Your task to perform on an android device: What's the weather today? Image 0: 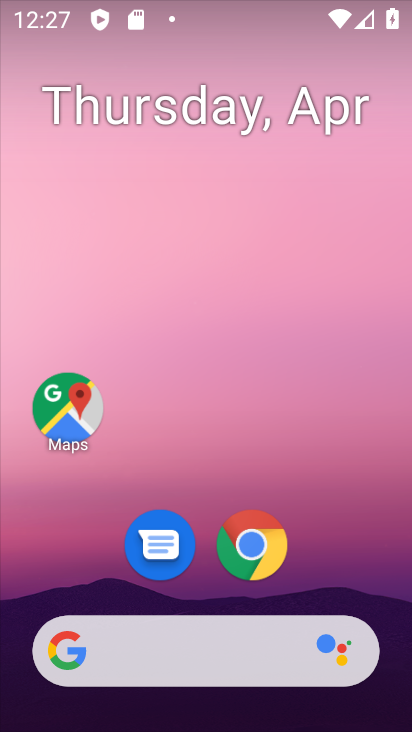
Step 0: drag from (336, 519) to (276, 136)
Your task to perform on an android device: What's the weather today? Image 1: 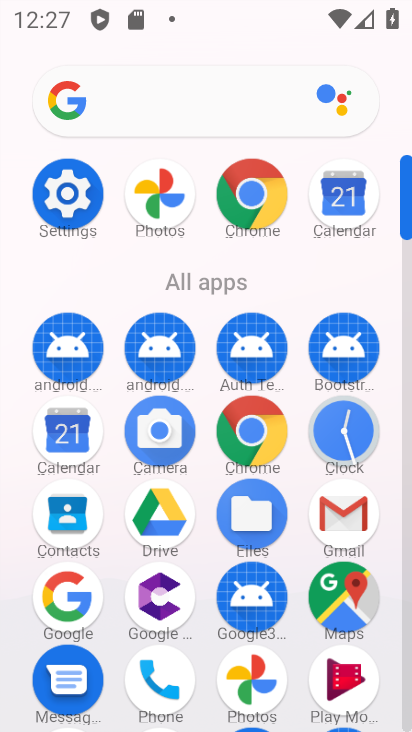
Step 1: click (248, 420)
Your task to perform on an android device: What's the weather today? Image 2: 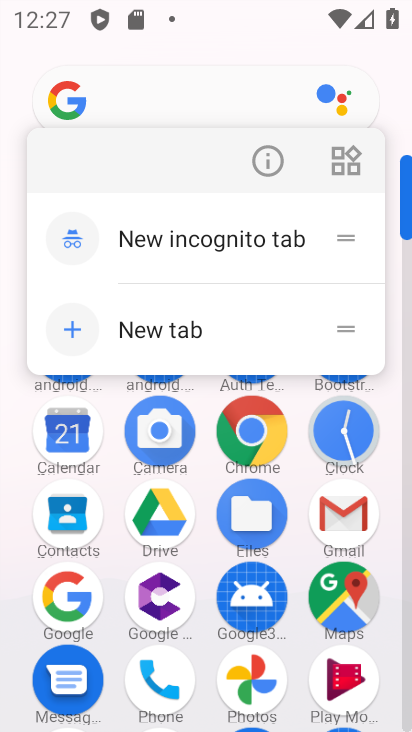
Step 2: click (251, 443)
Your task to perform on an android device: What's the weather today? Image 3: 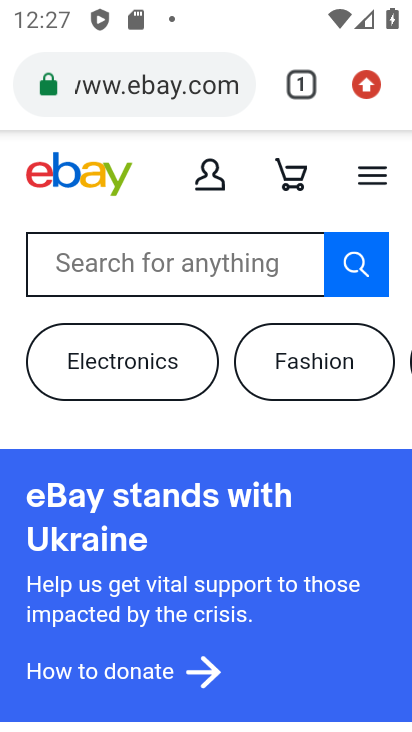
Step 3: click (184, 75)
Your task to perform on an android device: What's the weather today? Image 4: 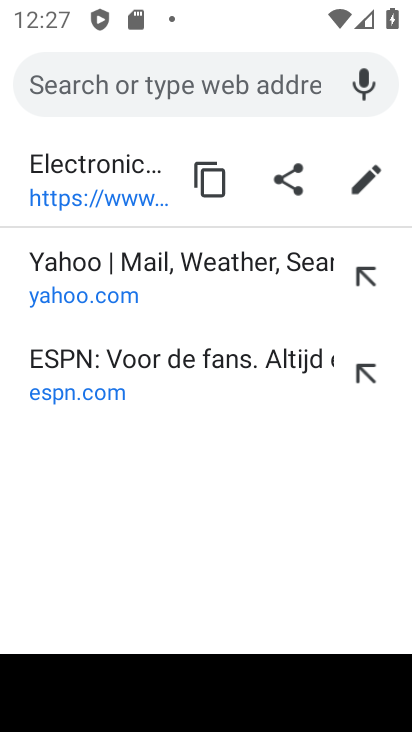
Step 4: type "weather"
Your task to perform on an android device: What's the weather today? Image 5: 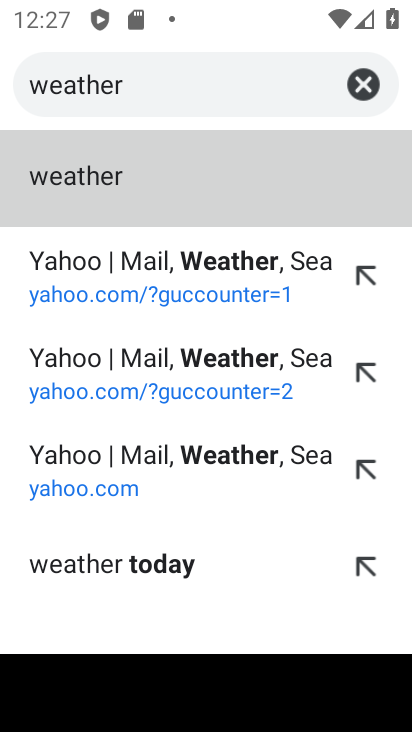
Step 5: click (100, 184)
Your task to perform on an android device: What's the weather today? Image 6: 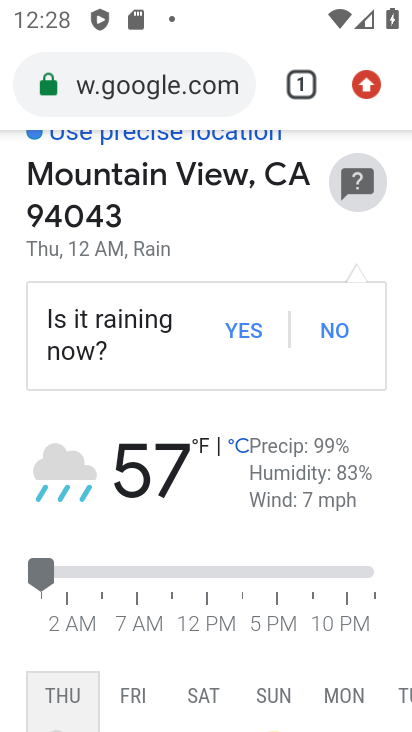
Step 6: task complete